Your task to perform on an android device: Is it going to rain this weekend? Image 0: 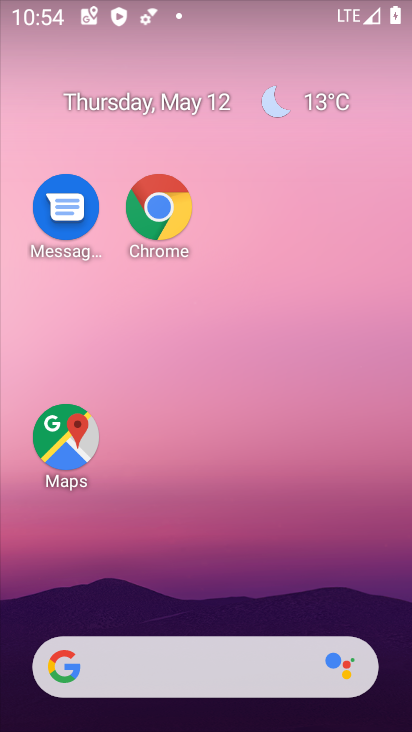
Step 0: drag from (216, 614) to (167, 3)
Your task to perform on an android device: Is it going to rain this weekend? Image 1: 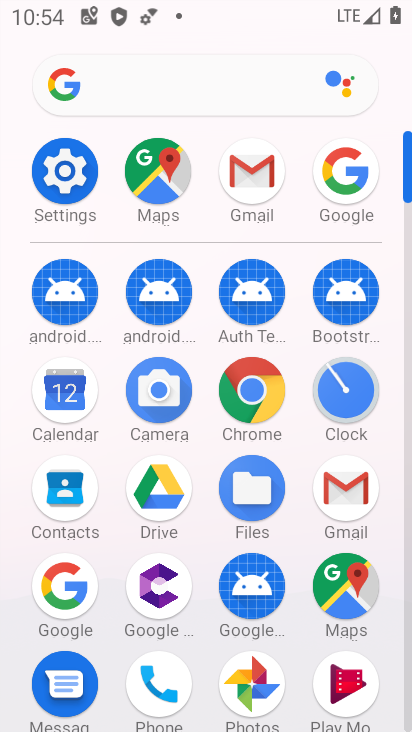
Step 1: drag from (201, 559) to (166, 160)
Your task to perform on an android device: Is it going to rain this weekend? Image 2: 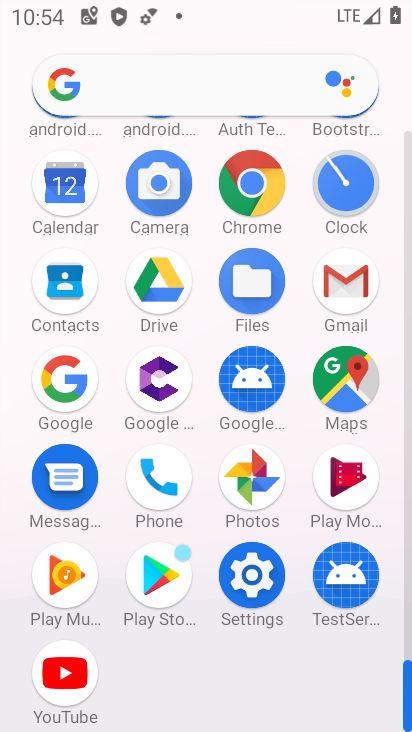
Step 2: click (50, 380)
Your task to perform on an android device: Is it going to rain this weekend? Image 3: 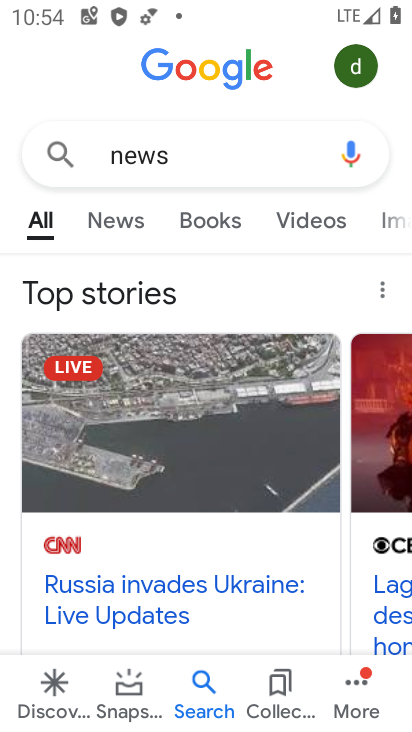
Step 3: click (248, 152)
Your task to perform on an android device: Is it going to rain this weekend? Image 4: 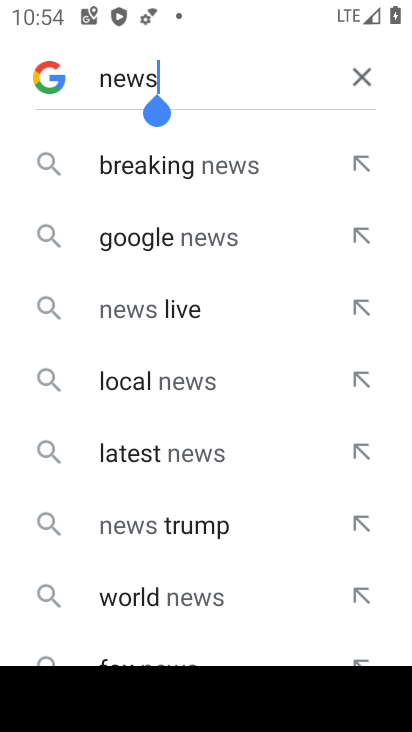
Step 4: click (355, 83)
Your task to perform on an android device: Is it going to rain this weekend? Image 5: 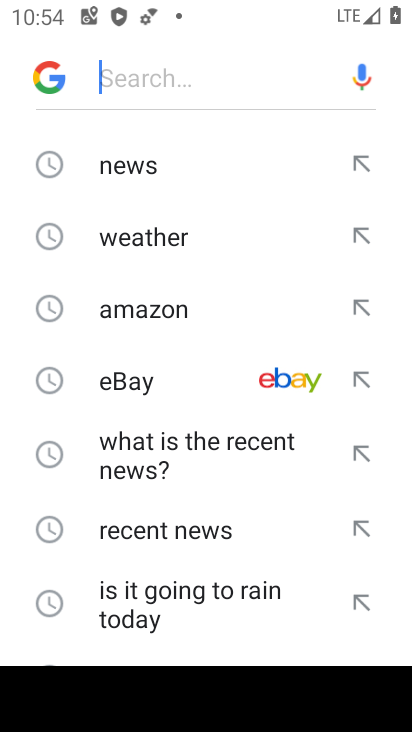
Step 5: click (141, 238)
Your task to perform on an android device: Is it going to rain this weekend? Image 6: 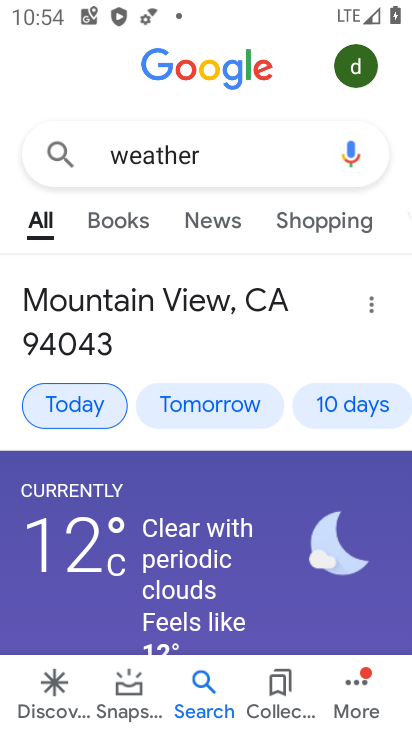
Step 6: click (298, 401)
Your task to perform on an android device: Is it going to rain this weekend? Image 7: 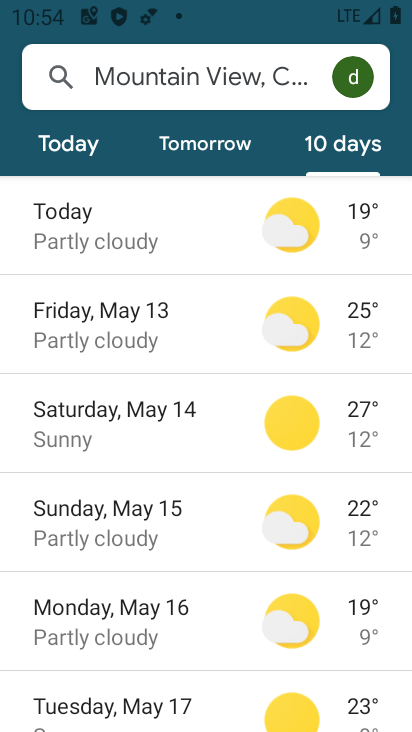
Step 7: task complete